Your task to perform on an android device: Open the map Image 0: 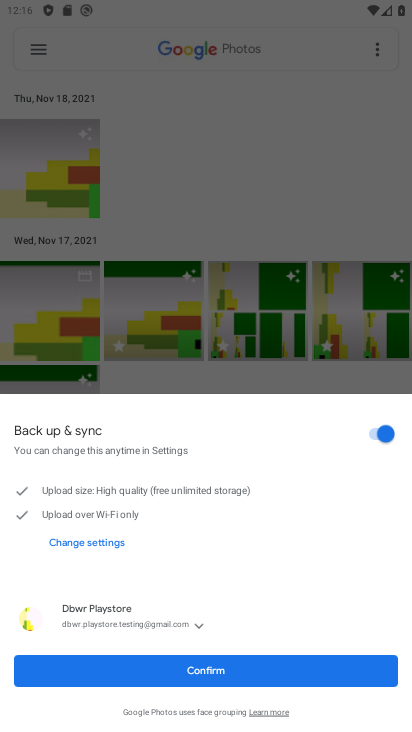
Step 0: press home button
Your task to perform on an android device: Open the map Image 1: 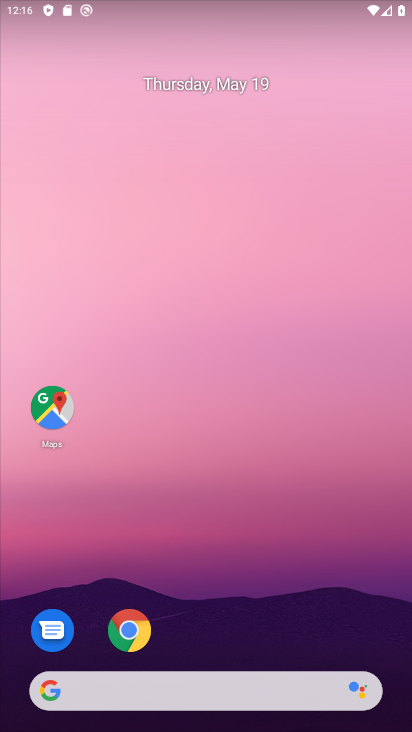
Step 1: click (56, 407)
Your task to perform on an android device: Open the map Image 2: 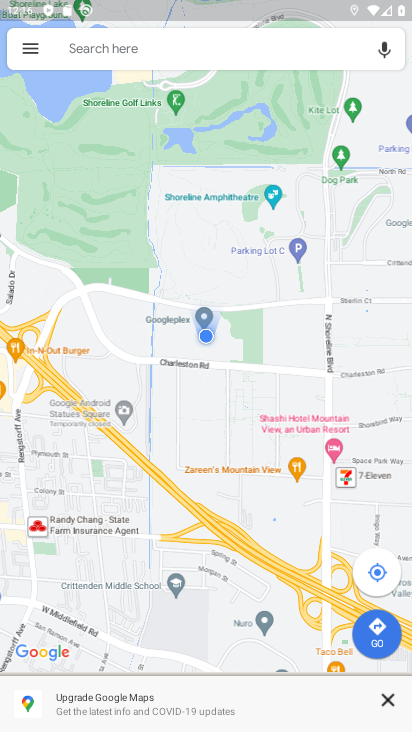
Step 2: task complete